Your task to perform on an android device: Open Yahoo.com Image 0: 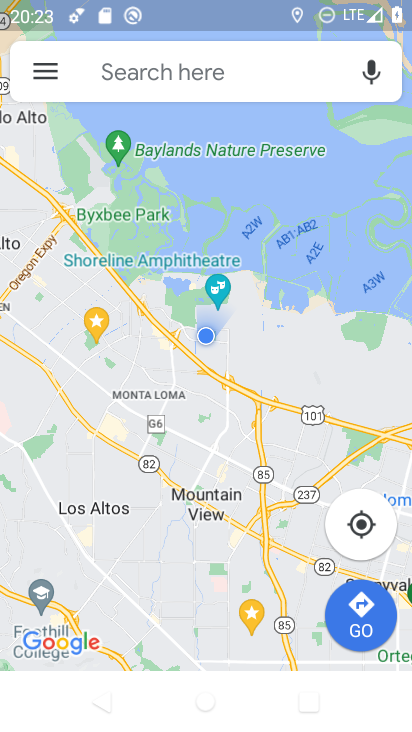
Step 0: press home button
Your task to perform on an android device: Open Yahoo.com Image 1: 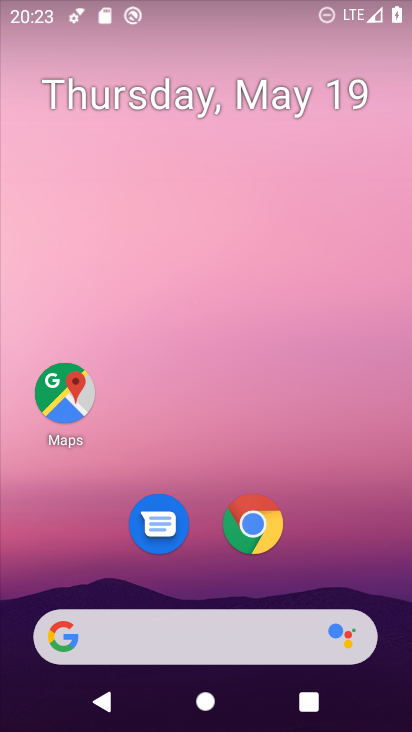
Step 1: drag from (316, 477) to (314, 39)
Your task to perform on an android device: Open Yahoo.com Image 2: 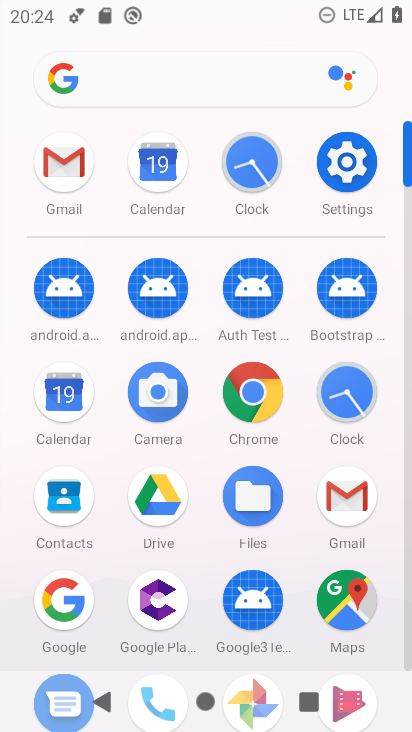
Step 2: click (136, 78)
Your task to perform on an android device: Open Yahoo.com Image 3: 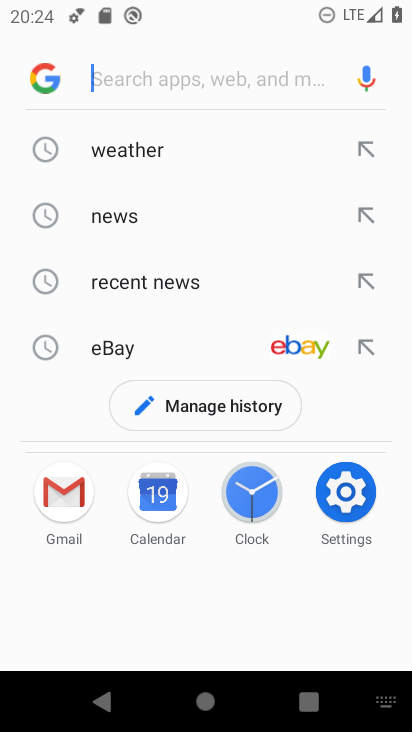
Step 3: type "yahoo.com"
Your task to perform on an android device: Open Yahoo.com Image 4: 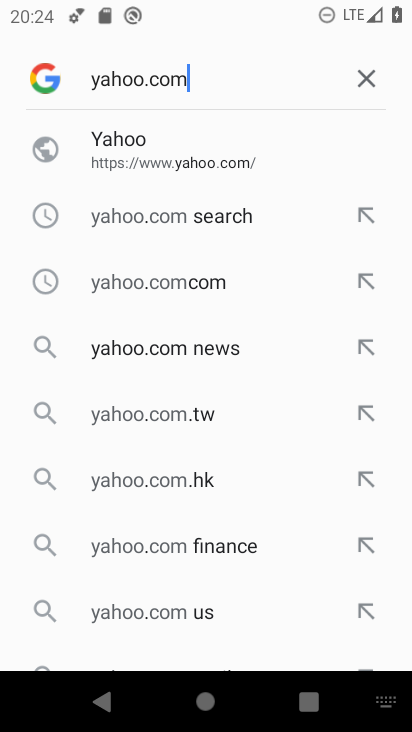
Step 4: click (104, 136)
Your task to perform on an android device: Open Yahoo.com Image 5: 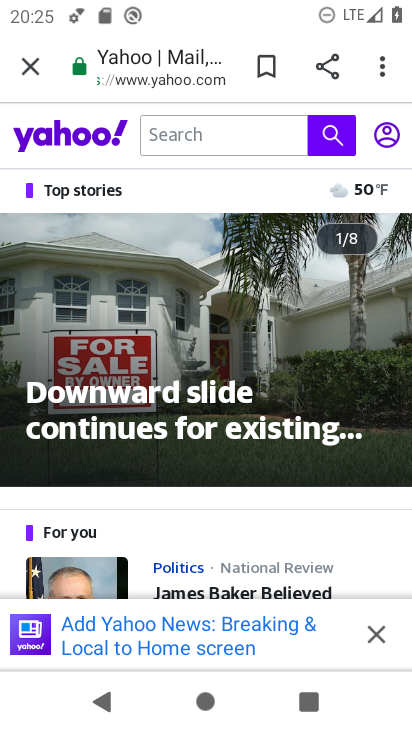
Step 5: task complete